Your task to perform on an android device: turn on improve location accuracy Image 0: 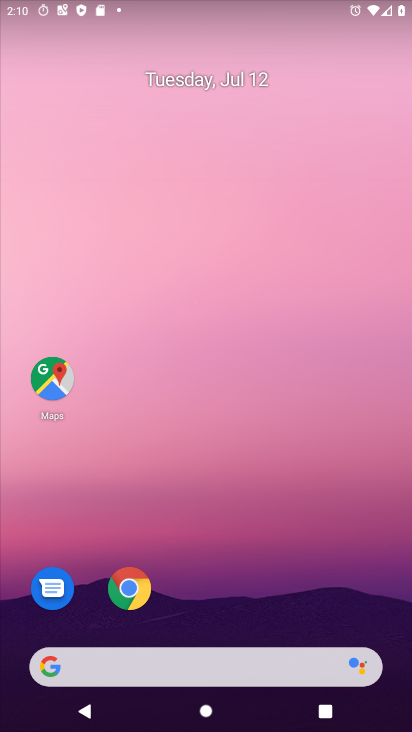
Step 0: drag from (200, 514) to (255, 91)
Your task to perform on an android device: turn on improve location accuracy Image 1: 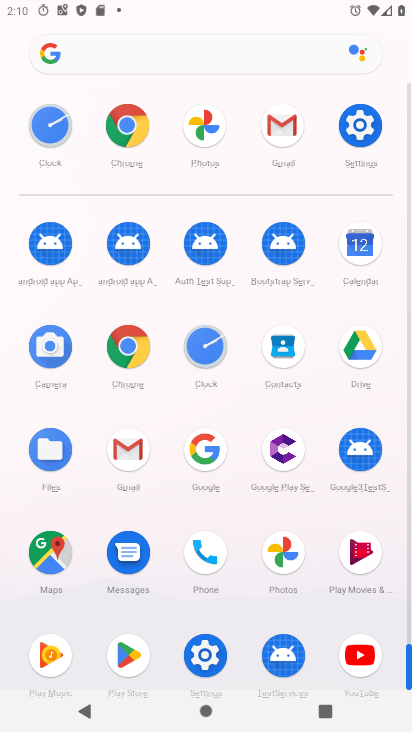
Step 1: click (339, 140)
Your task to perform on an android device: turn on improve location accuracy Image 2: 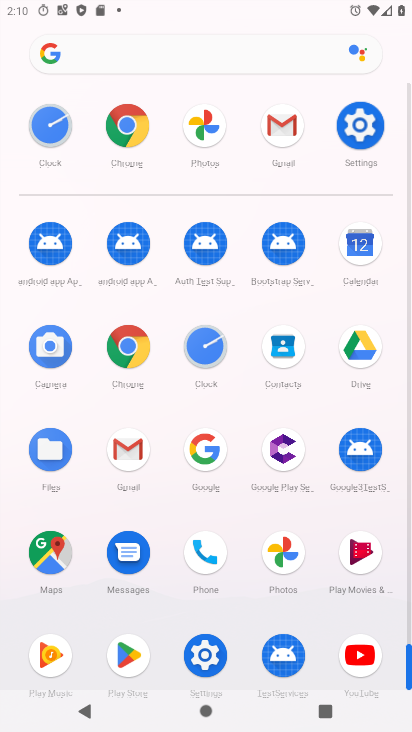
Step 2: click (354, 138)
Your task to perform on an android device: turn on improve location accuracy Image 3: 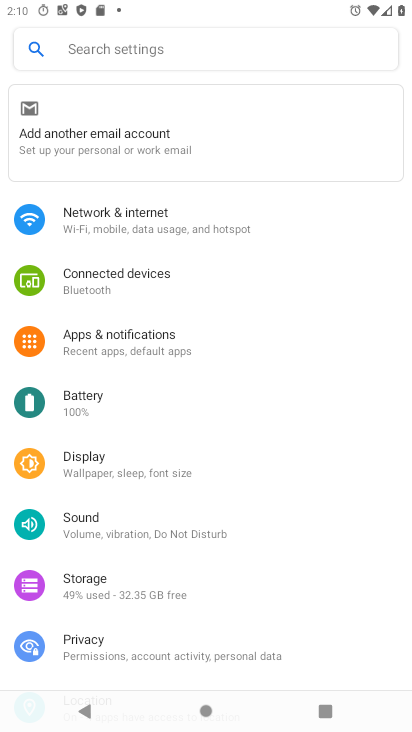
Step 3: drag from (168, 649) to (299, 187)
Your task to perform on an android device: turn on improve location accuracy Image 4: 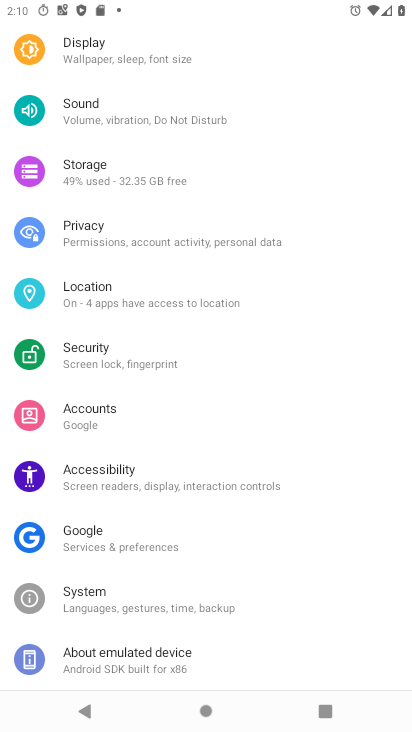
Step 4: drag from (151, 582) to (269, 298)
Your task to perform on an android device: turn on improve location accuracy Image 5: 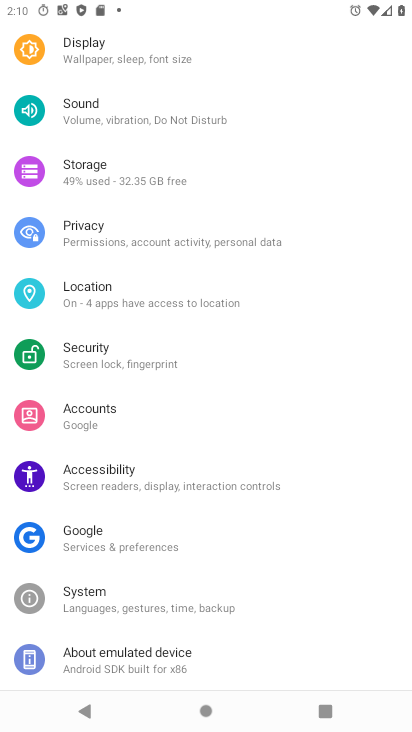
Step 5: click (118, 299)
Your task to perform on an android device: turn on improve location accuracy Image 6: 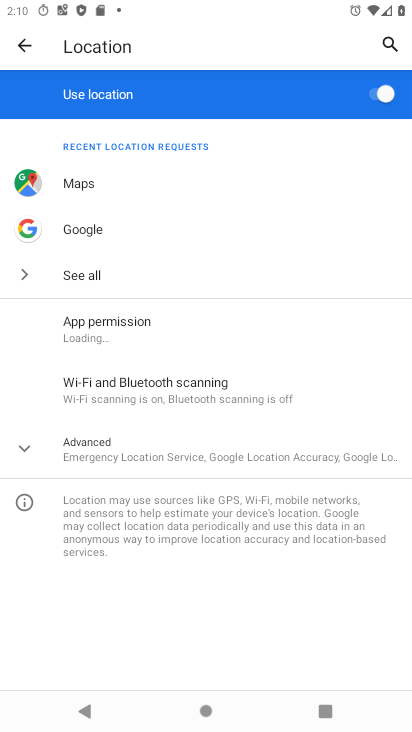
Step 6: click (120, 452)
Your task to perform on an android device: turn on improve location accuracy Image 7: 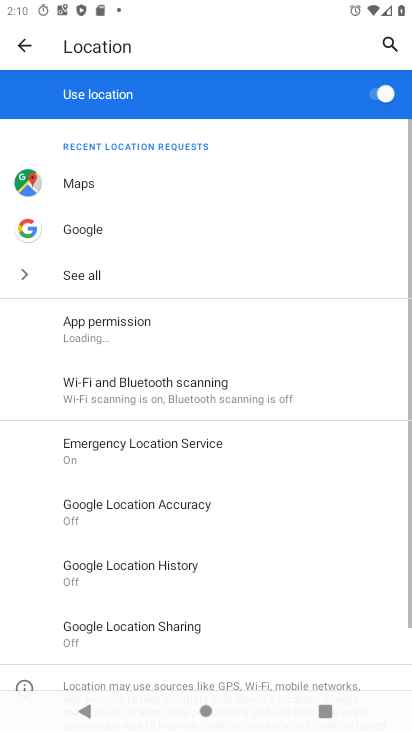
Step 7: drag from (166, 512) to (267, 235)
Your task to perform on an android device: turn on improve location accuracy Image 8: 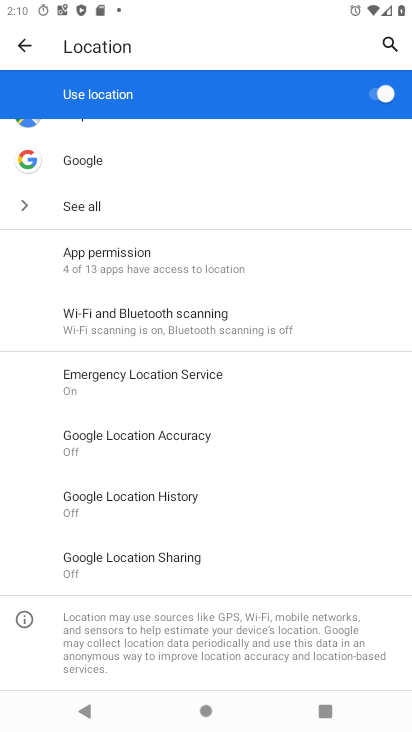
Step 8: click (164, 433)
Your task to perform on an android device: turn on improve location accuracy Image 9: 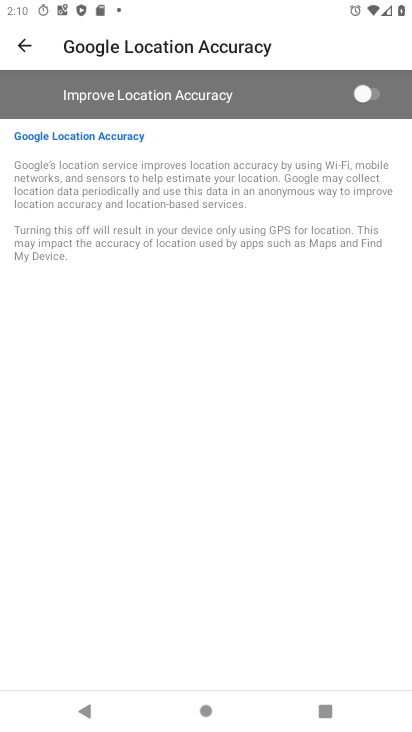
Step 9: click (365, 95)
Your task to perform on an android device: turn on improve location accuracy Image 10: 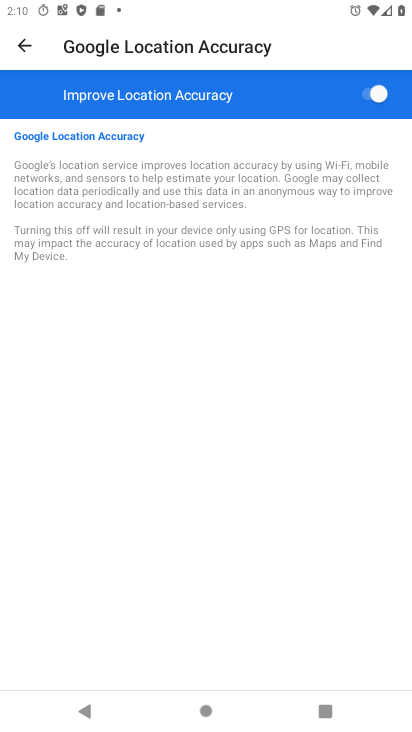
Step 10: task complete